Your task to perform on an android device: all mails in gmail Image 0: 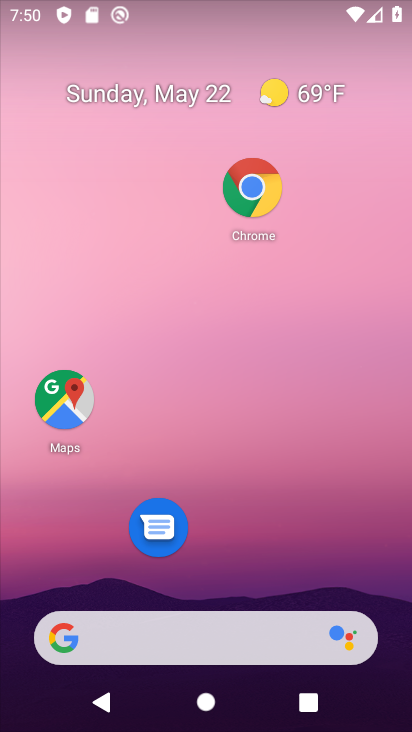
Step 0: drag from (228, 575) to (231, 54)
Your task to perform on an android device: all mails in gmail Image 1: 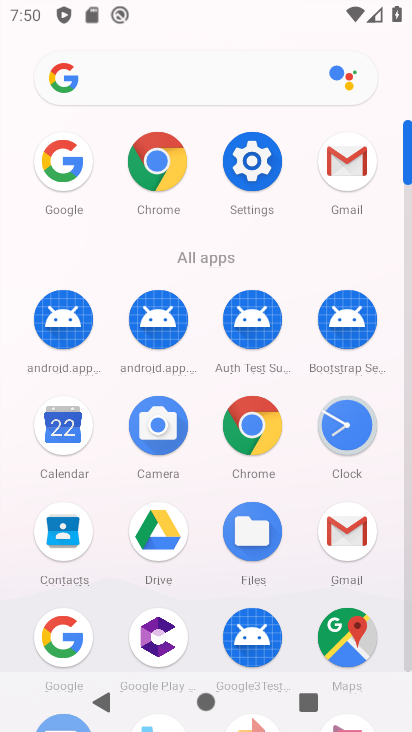
Step 1: click (342, 155)
Your task to perform on an android device: all mails in gmail Image 2: 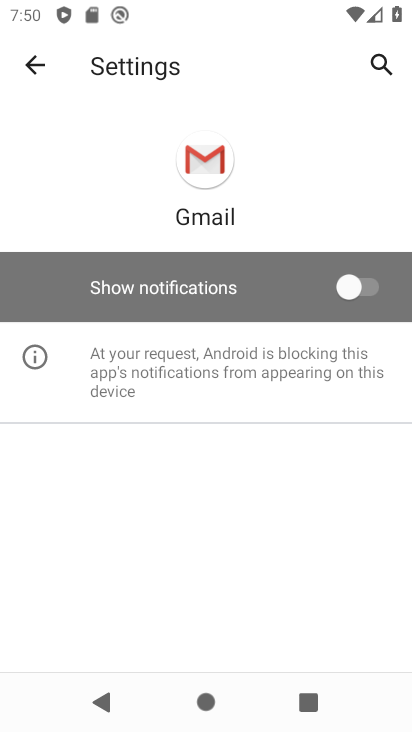
Step 2: click (51, 66)
Your task to perform on an android device: all mails in gmail Image 3: 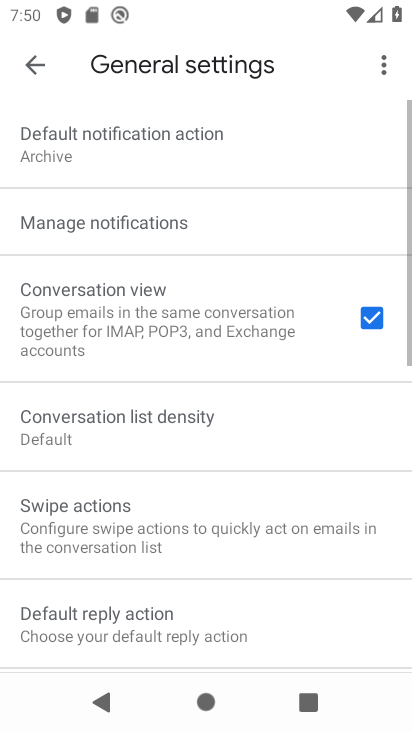
Step 3: click (27, 61)
Your task to perform on an android device: all mails in gmail Image 4: 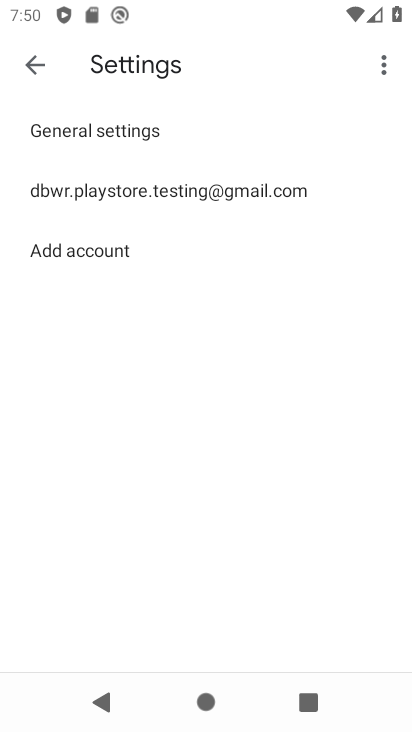
Step 4: click (28, 60)
Your task to perform on an android device: all mails in gmail Image 5: 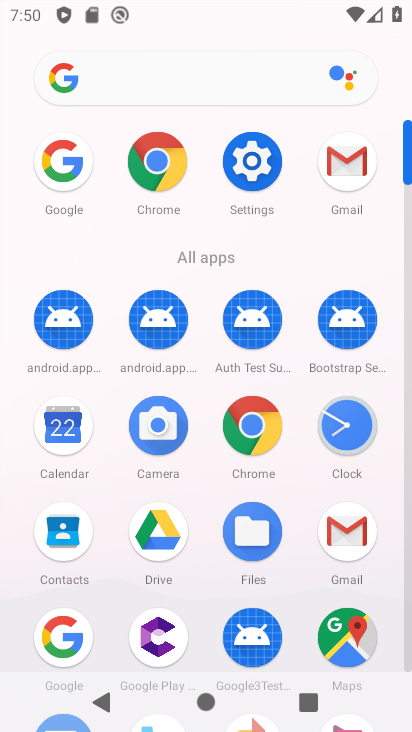
Step 5: click (343, 529)
Your task to perform on an android device: all mails in gmail Image 6: 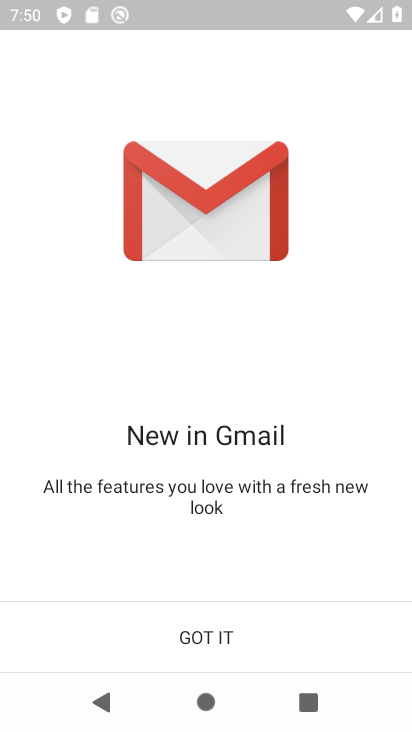
Step 6: click (217, 632)
Your task to perform on an android device: all mails in gmail Image 7: 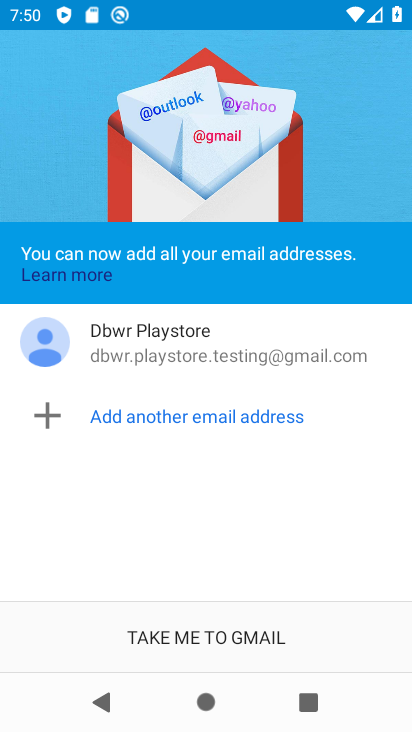
Step 7: click (217, 632)
Your task to perform on an android device: all mails in gmail Image 8: 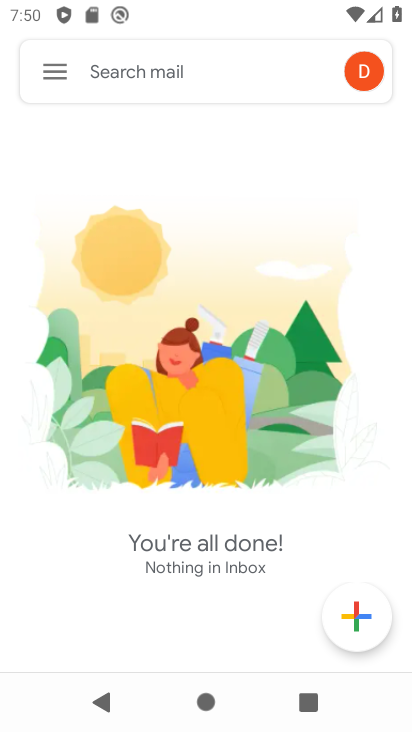
Step 8: click (62, 66)
Your task to perform on an android device: all mails in gmail Image 9: 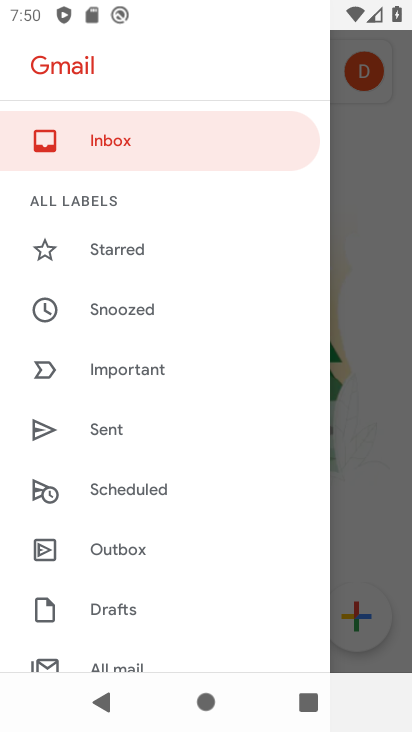
Step 9: click (135, 656)
Your task to perform on an android device: all mails in gmail Image 10: 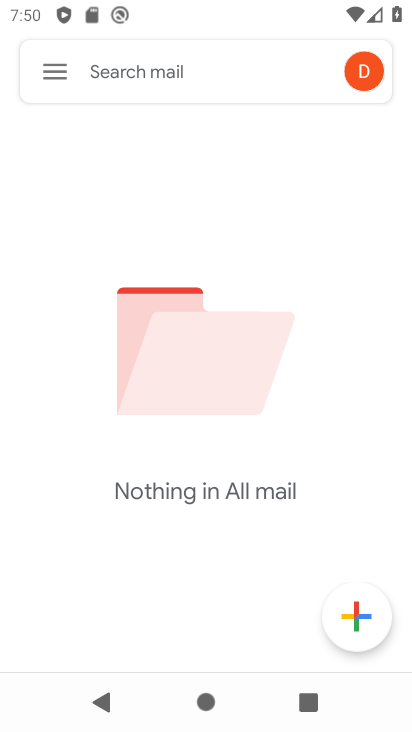
Step 10: task complete